Your task to perform on an android device: turn off translation in the chrome app Image 0: 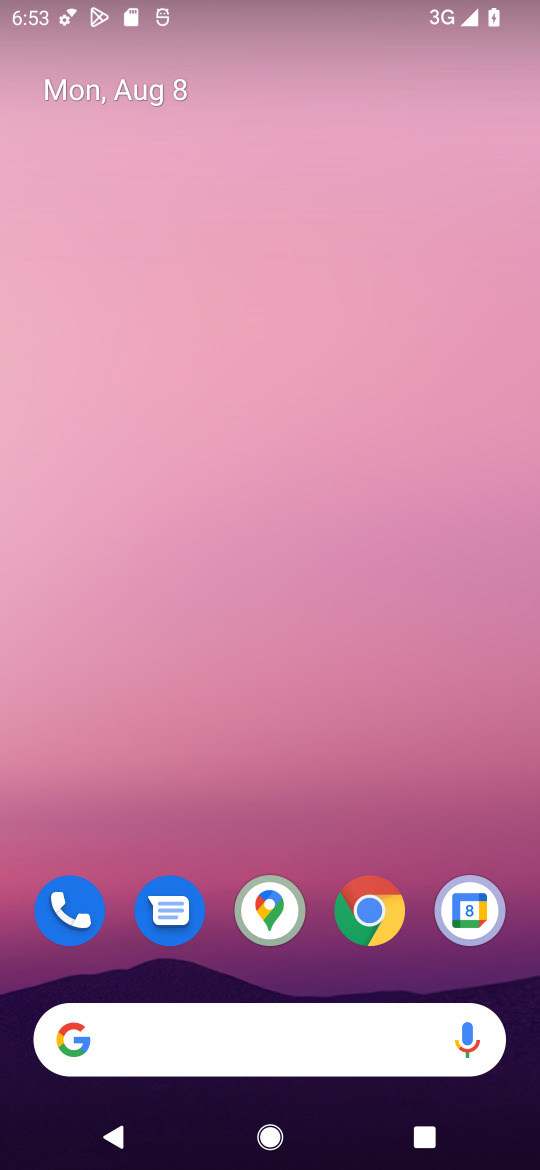
Step 0: click (360, 900)
Your task to perform on an android device: turn off translation in the chrome app Image 1: 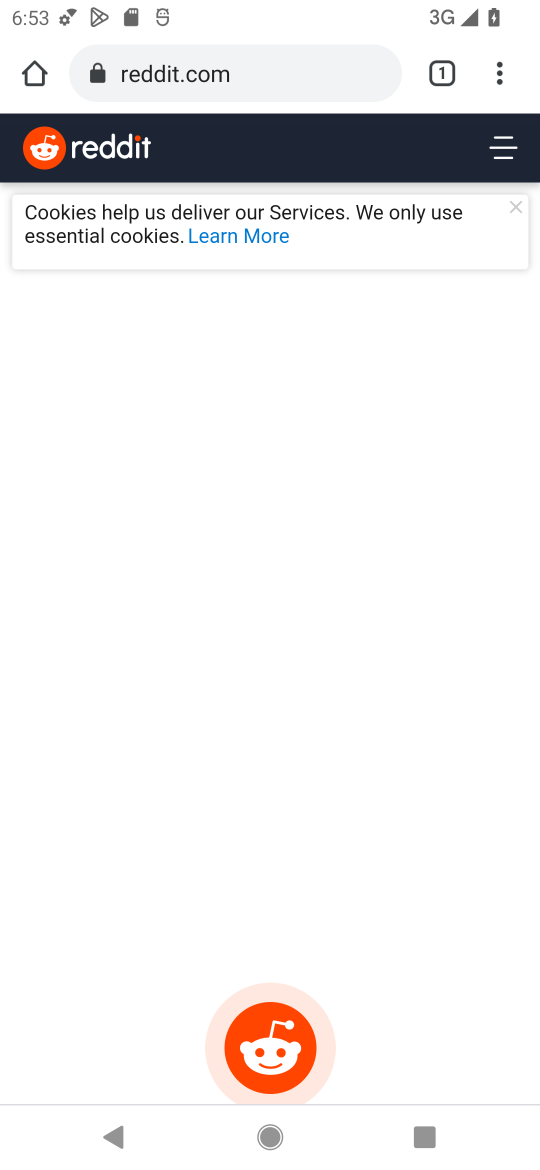
Step 1: click (499, 76)
Your task to perform on an android device: turn off translation in the chrome app Image 2: 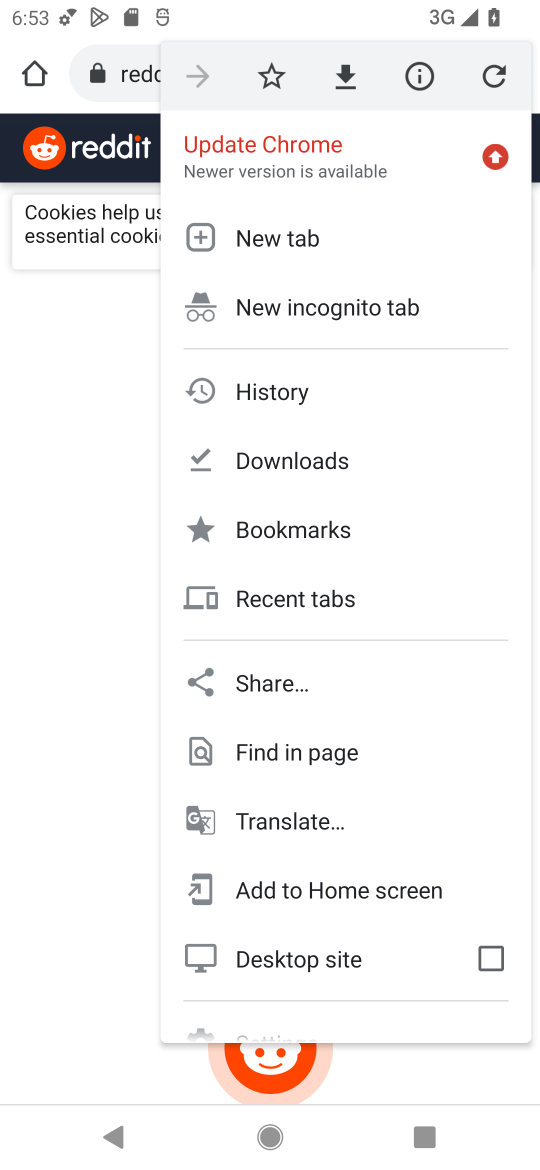
Step 2: click (463, 613)
Your task to perform on an android device: turn off translation in the chrome app Image 3: 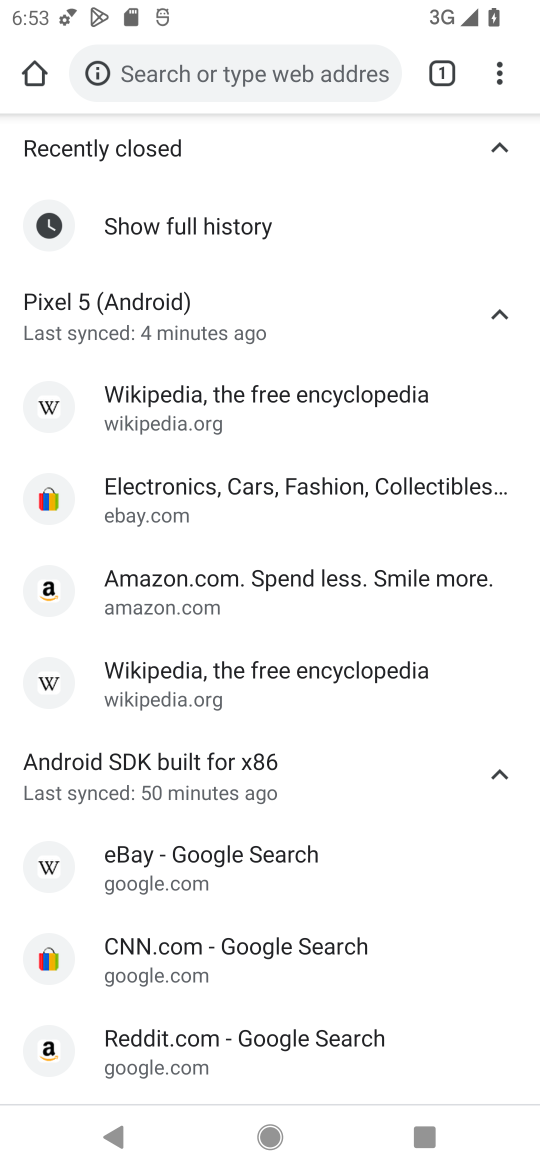
Step 3: click (511, 70)
Your task to perform on an android device: turn off translation in the chrome app Image 4: 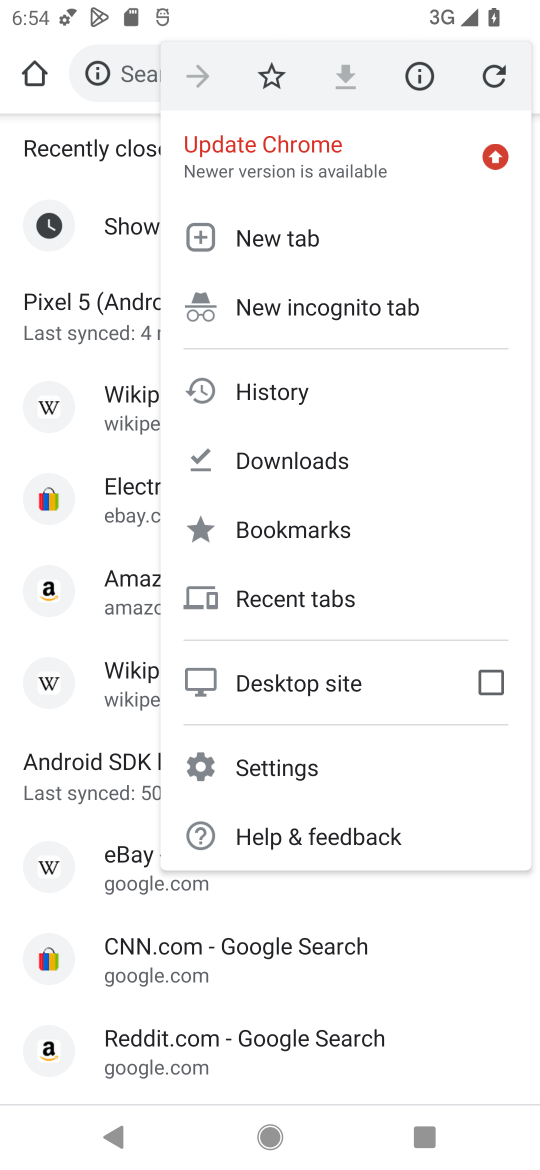
Step 4: click (307, 773)
Your task to perform on an android device: turn off translation in the chrome app Image 5: 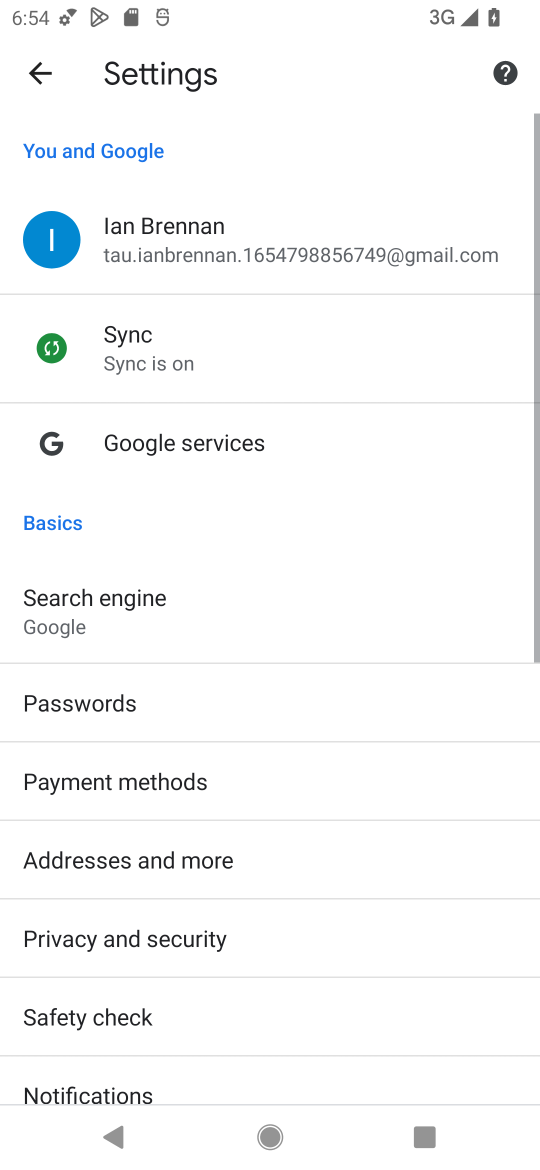
Step 5: drag from (342, 666) to (268, 170)
Your task to perform on an android device: turn off translation in the chrome app Image 6: 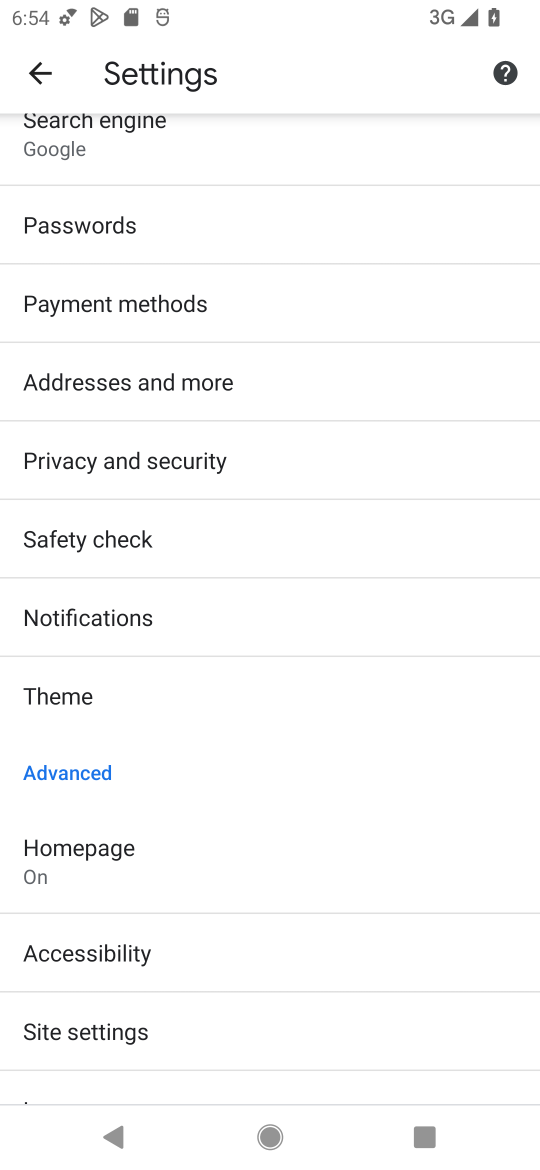
Step 6: drag from (360, 768) to (236, 234)
Your task to perform on an android device: turn off translation in the chrome app Image 7: 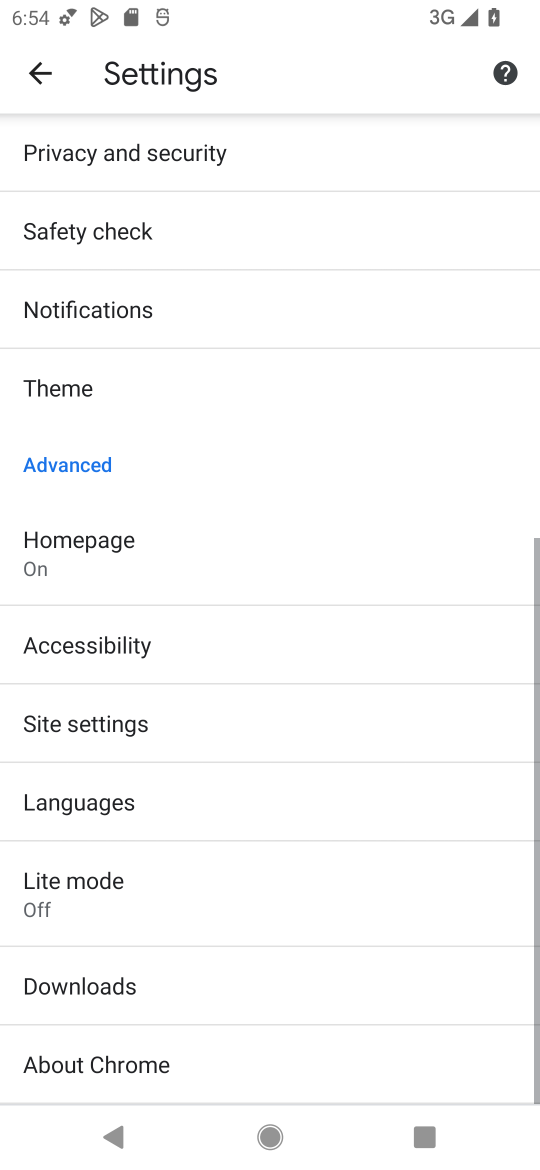
Step 7: click (95, 647)
Your task to perform on an android device: turn off translation in the chrome app Image 8: 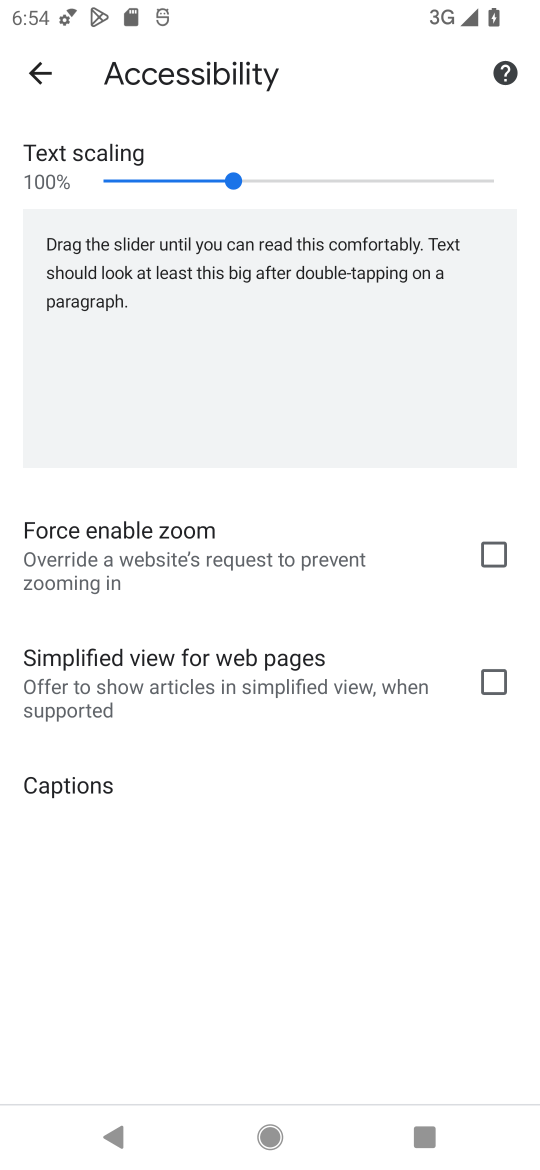
Step 8: click (43, 65)
Your task to perform on an android device: turn off translation in the chrome app Image 9: 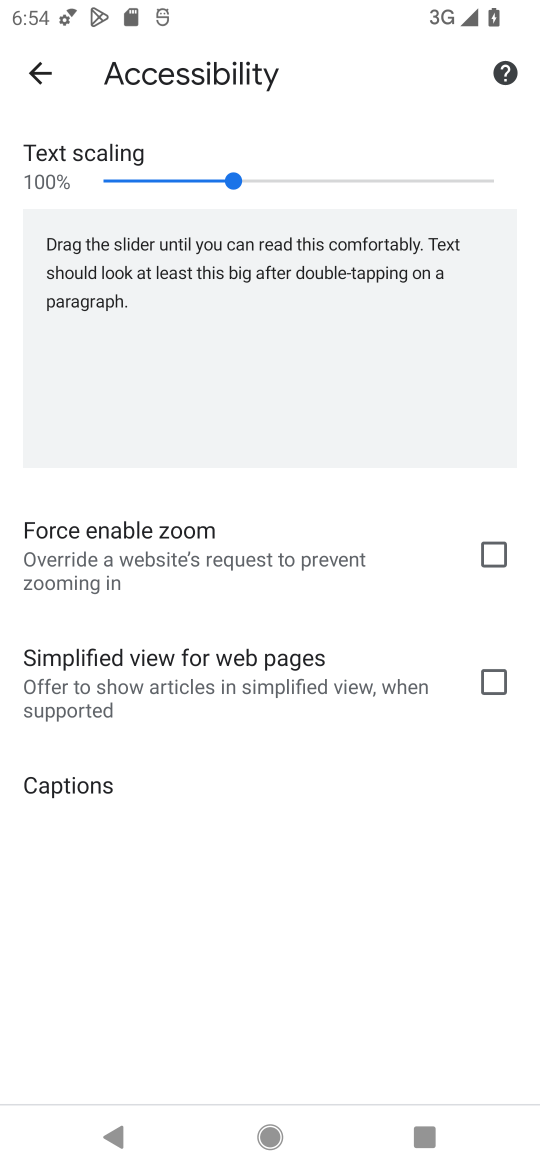
Step 9: click (43, 65)
Your task to perform on an android device: turn off translation in the chrome app Image 10: 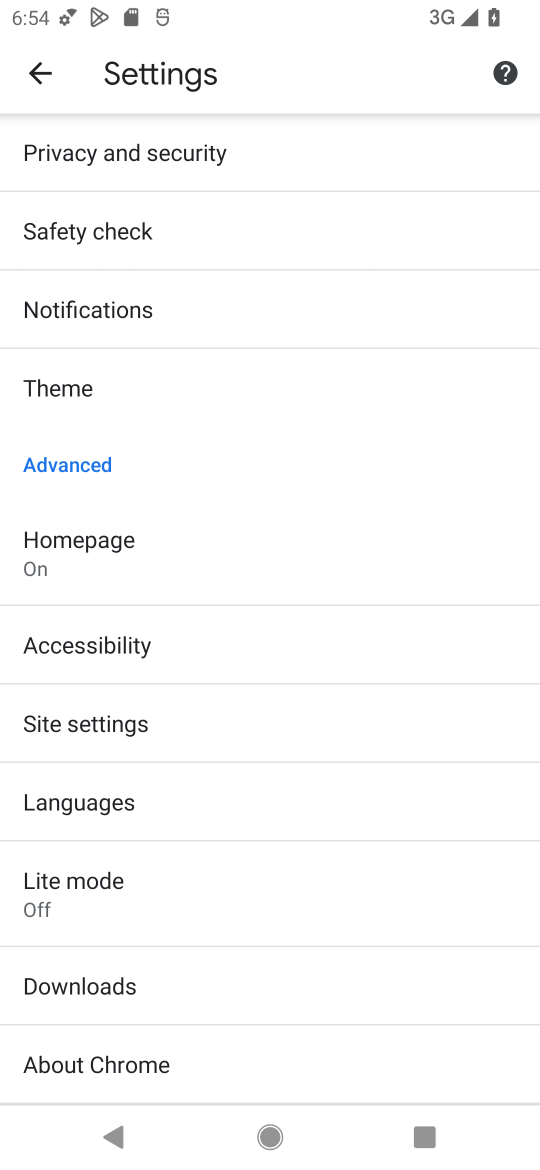
Step 10: click (78, 822)
Your task to perform on an android device: turn off translation in the chrome app Image 11: 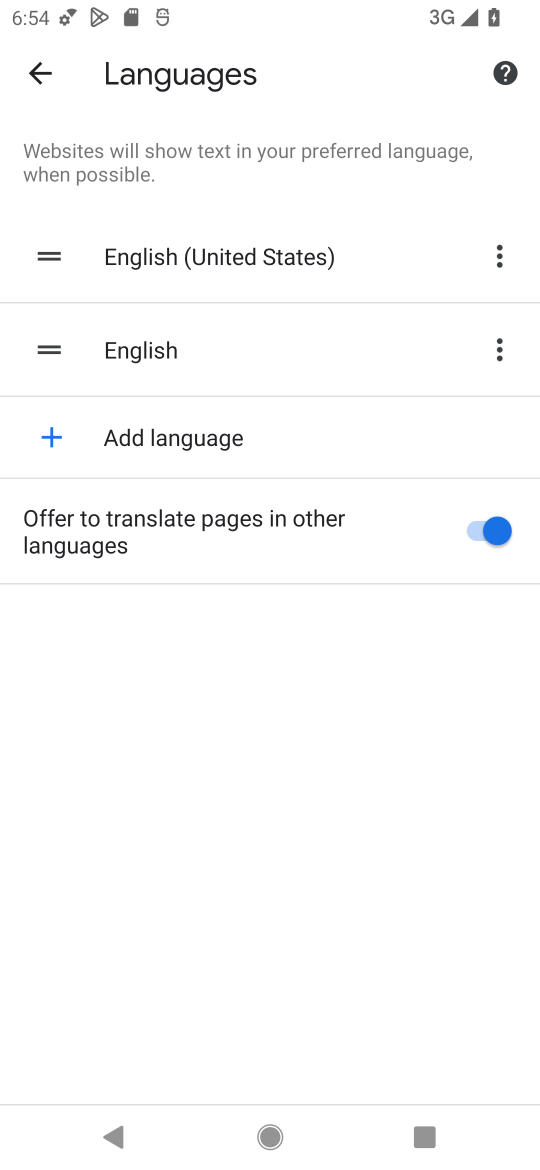
Step 11: click (502, 529)
Your task to perform on an android device: turn off translation in the chrome app Image 12: 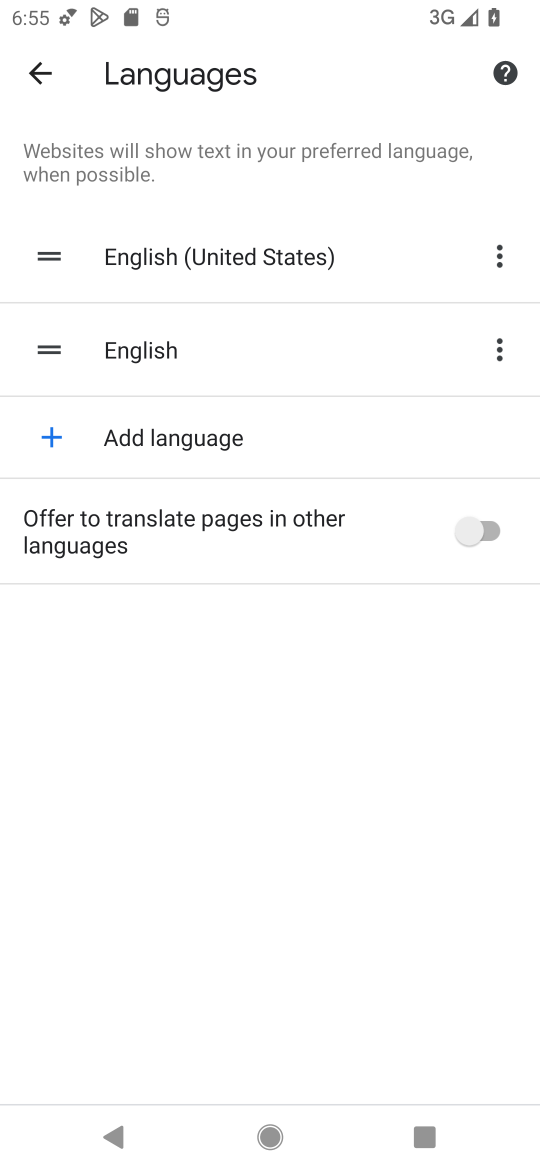
Step 12: task complete